Your task to perform on an android device: open app "Gmail" (install if not already installed) and go to login screen Image 0: 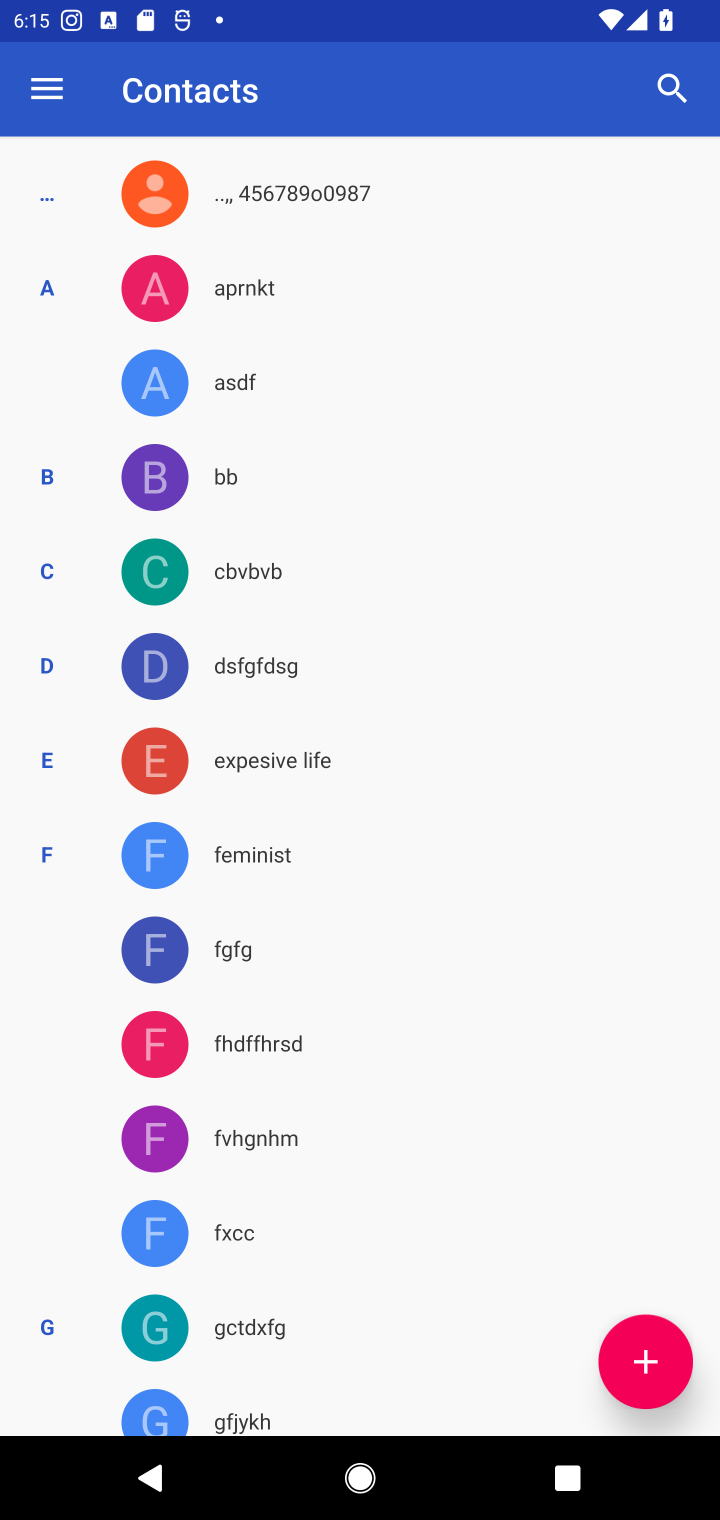
Step 0: press home button
Your task to perform on an android device: open app "Gmail" (install if not already installed) and go to login screen Image 1: 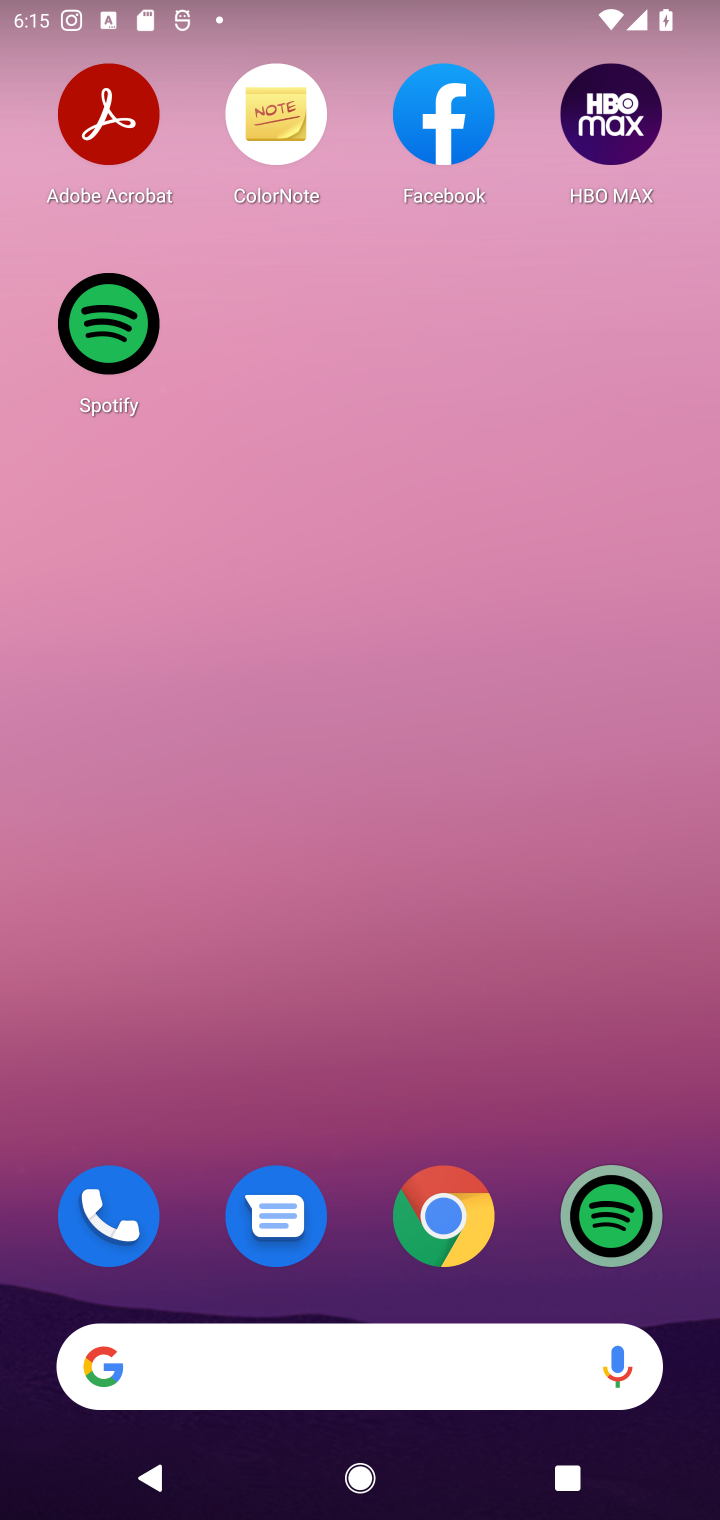
Step 1: drag from (292, 971) to (176, 225)
Your task to perform on an android device: open app "Gmail" (install if not already installed) and go to login screen Image 2: 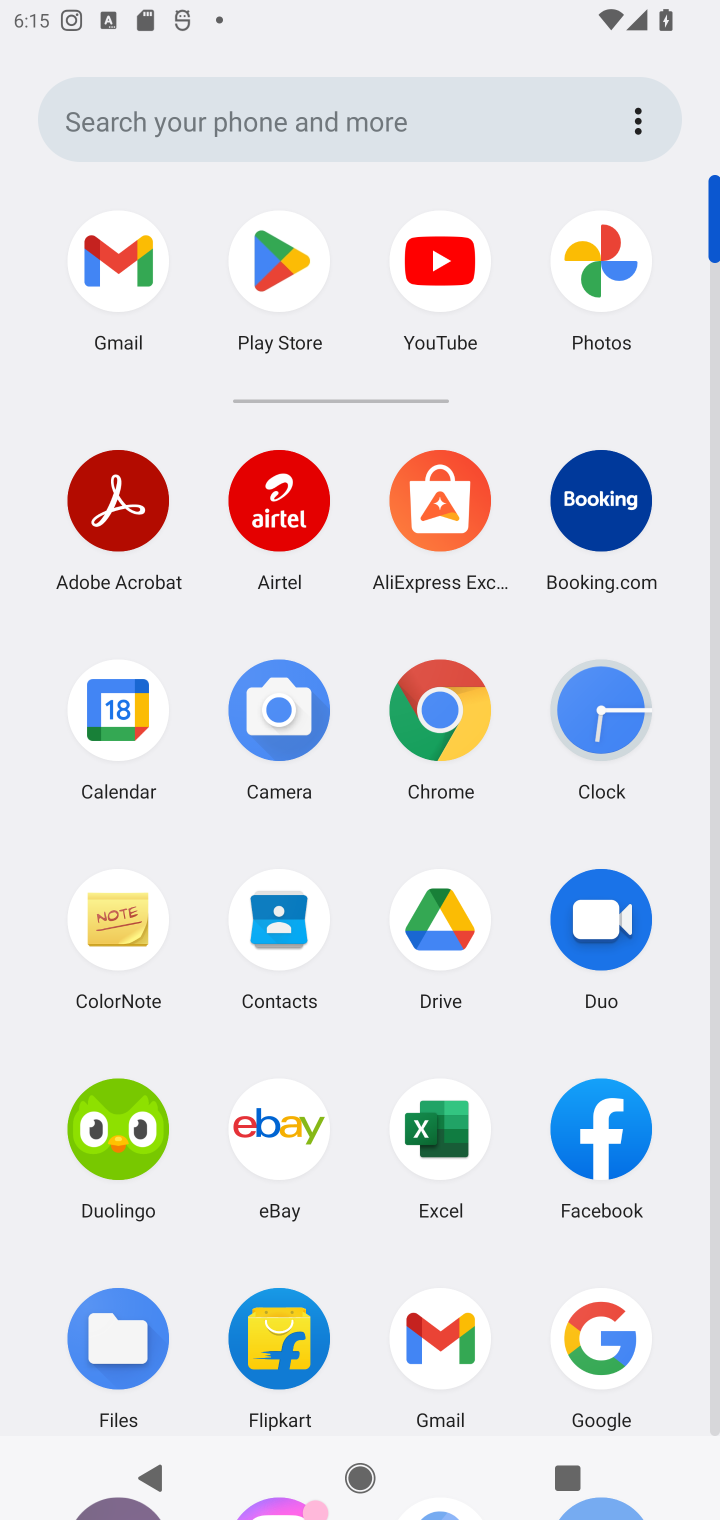
Step 2: click (302, 298)
Your task to perform on an android device: open app "Gmail" (install if not already installed) and go to login screen Image 3: 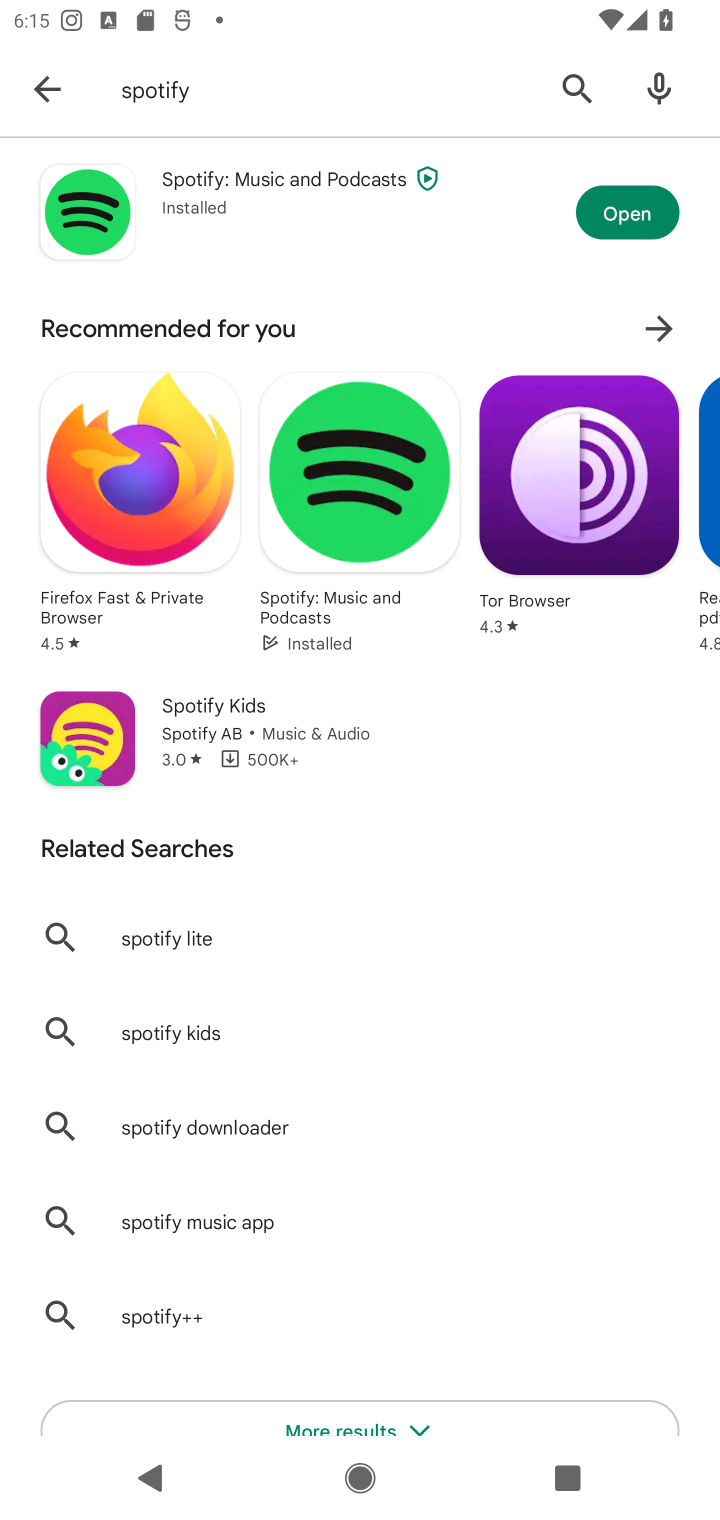
Step 3: click (576, 88)
Your task to perform on an android device: open app "Gmail" (install if not already installed) and go to login screen Image 4: 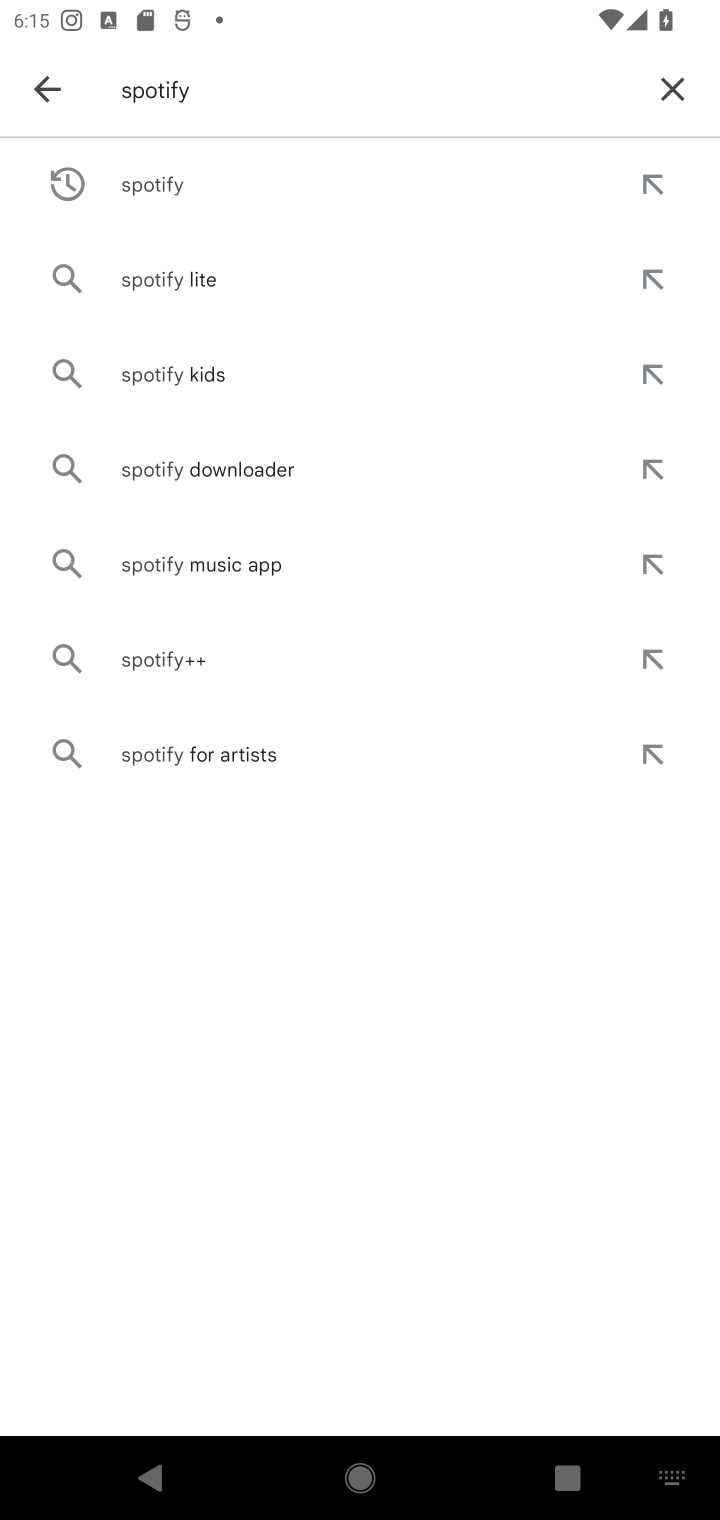
Step 4: click (660, 82)
Your task to perform on an android device: open app "Gmail" (install if not already installed) and go to login screen Image 5: 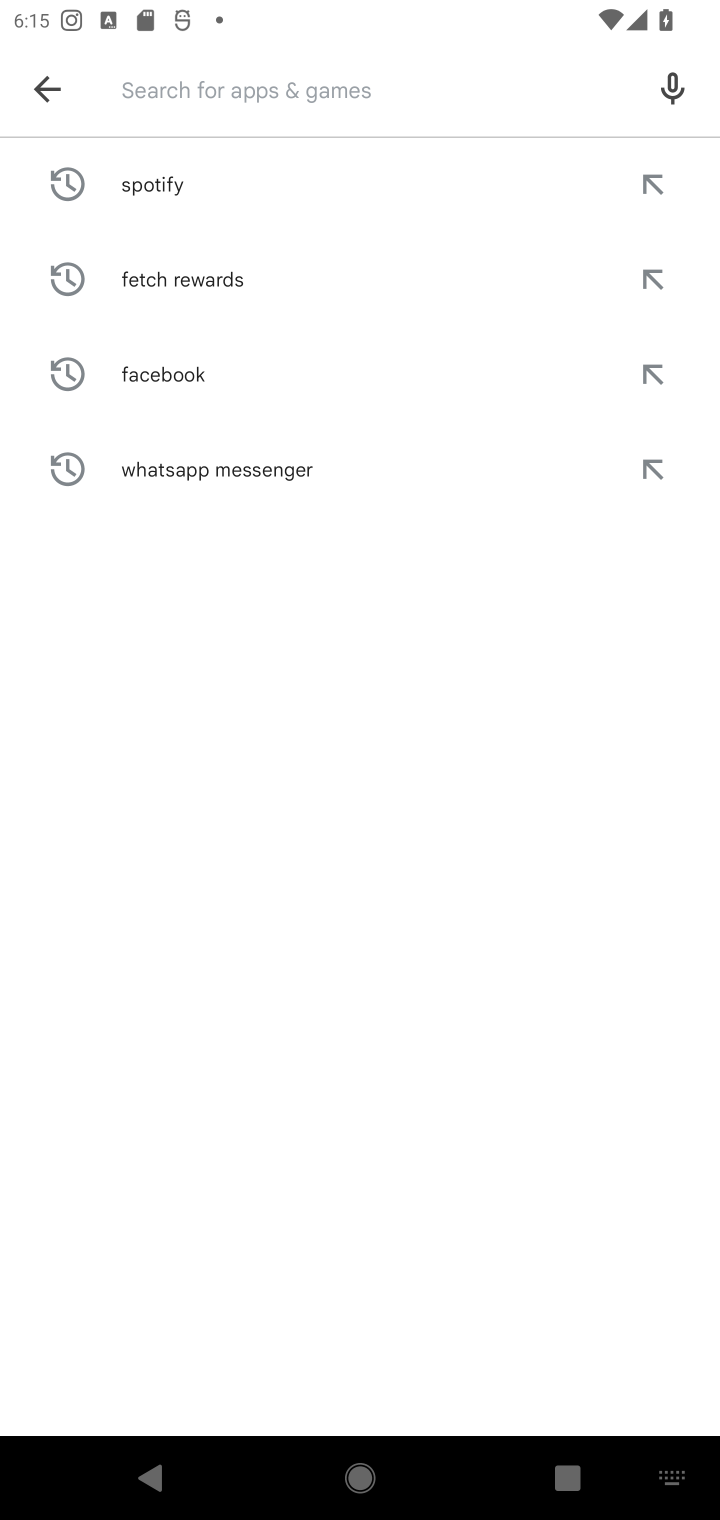
Step 5: type "Gmail"
Your task to perform on an android device: open app "Gmail" (install if not already installed) and go to login screen Image 6: 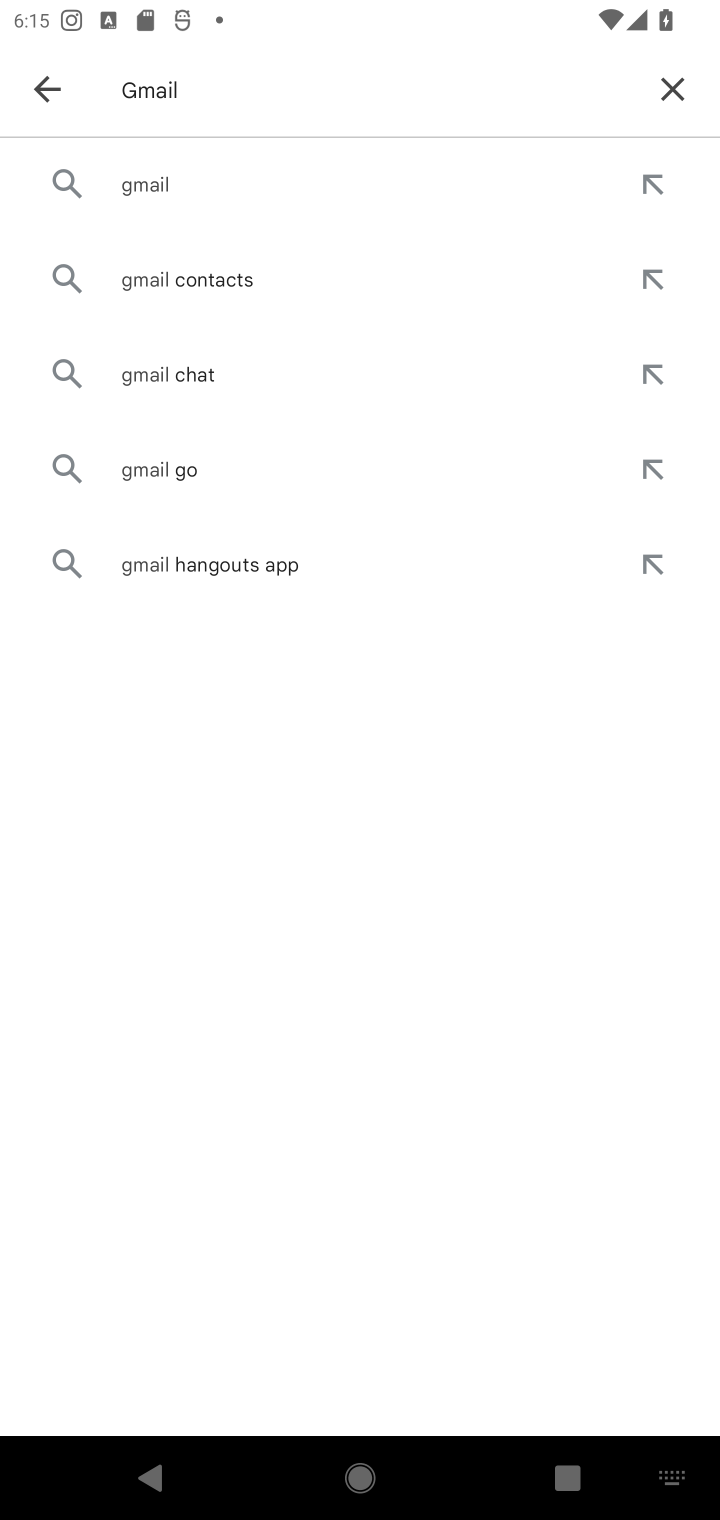
Step 6: click (165, 173)
Your task to perform on an android device: open app "Gmail" (install if not already installed) and go to login screen Image 7: 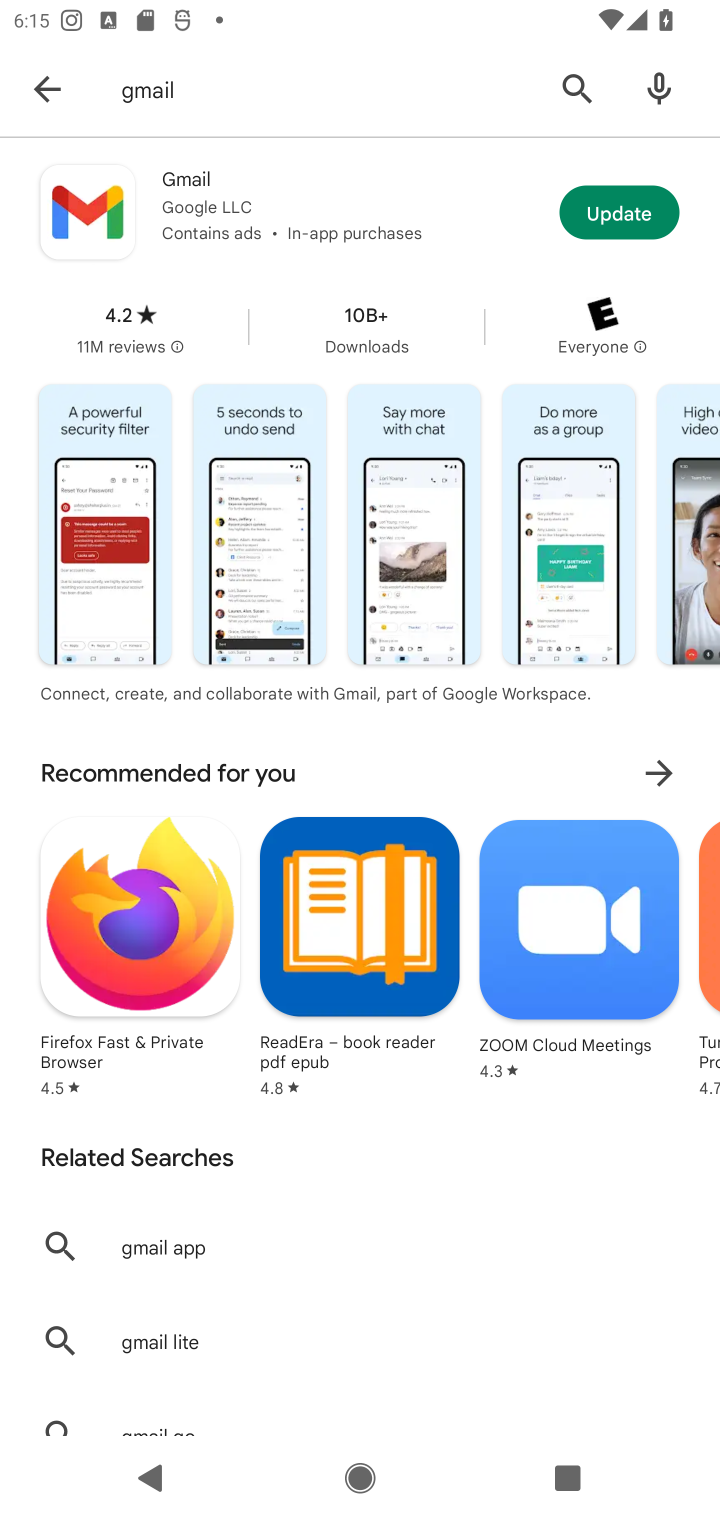
Step 7: click (378, 196)
Your task to perform on an android device: open app "Gmail" (install if not already installed) and go to login screen Image 8: 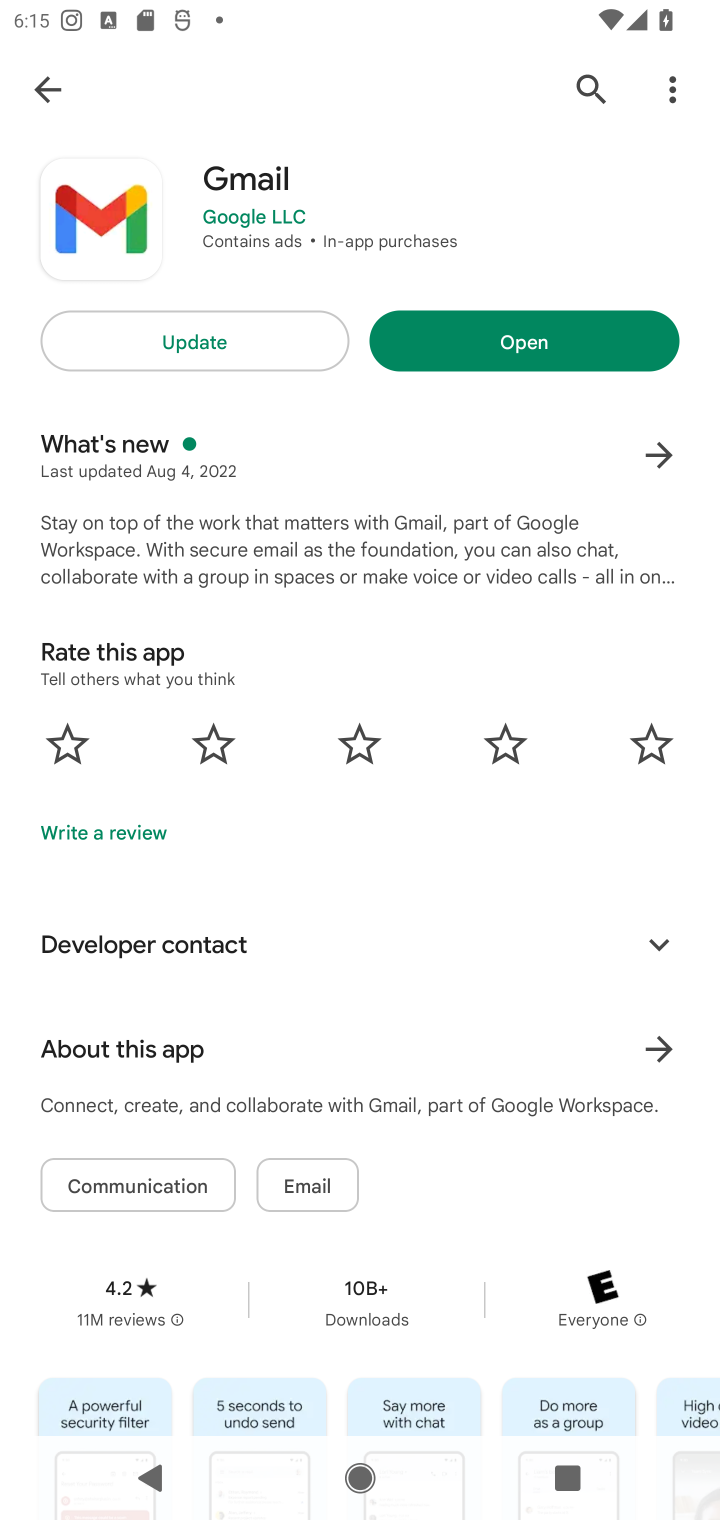
Step 8: click (554, 345)
Your task to perform on an android device: open app "Gmail" (install if not already installed) and go to login screen Image 9: 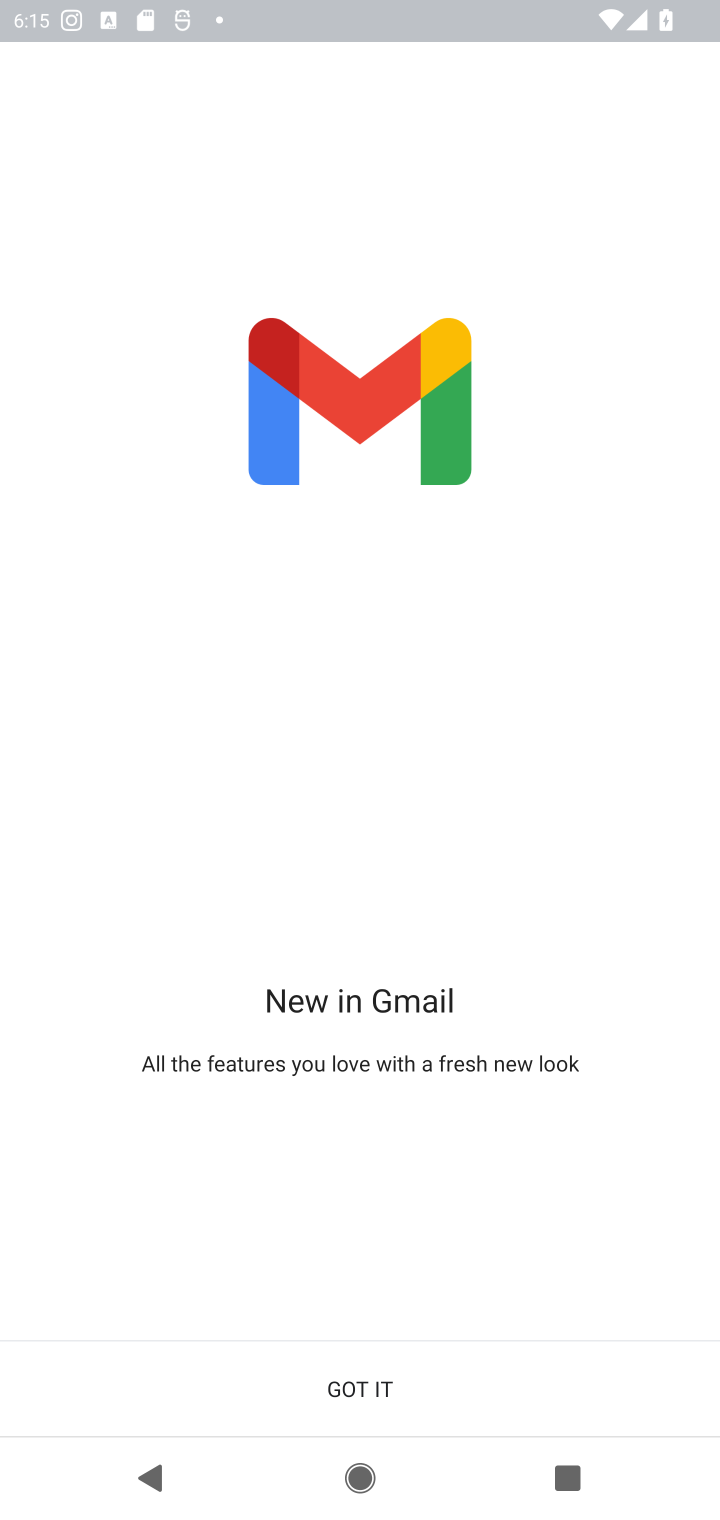
Step 9: task complete